Your task to perform on an android device: open app "DoorDash - Food Delivery" (install if not already installed) and go to login screen Image 0: 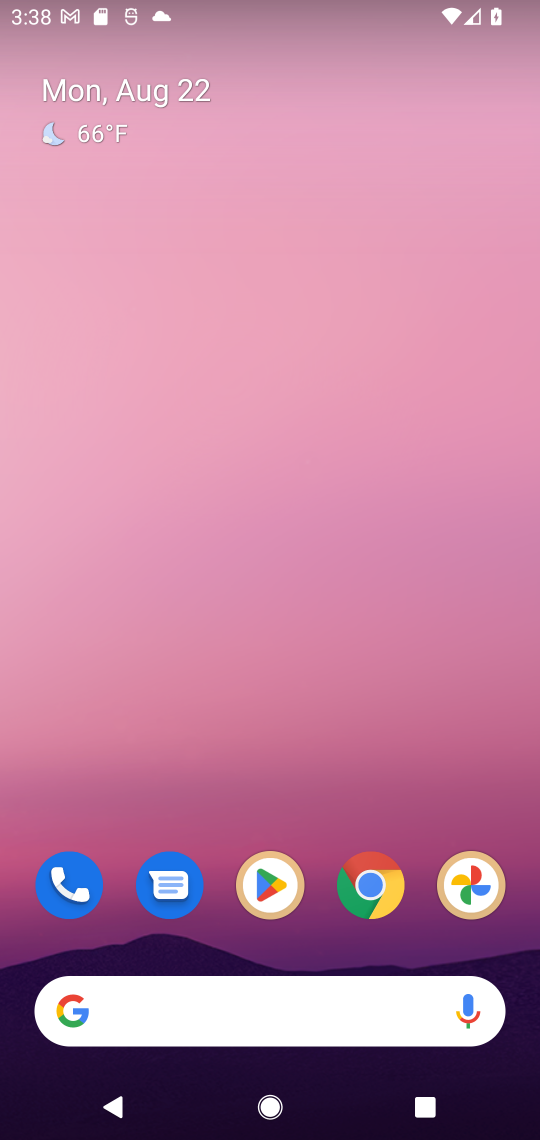
Step 0: press home button
Your task to perform on an android device: open app "DoorDash - Food Delivery" (install if not already installed) and go to login screen Image 1: 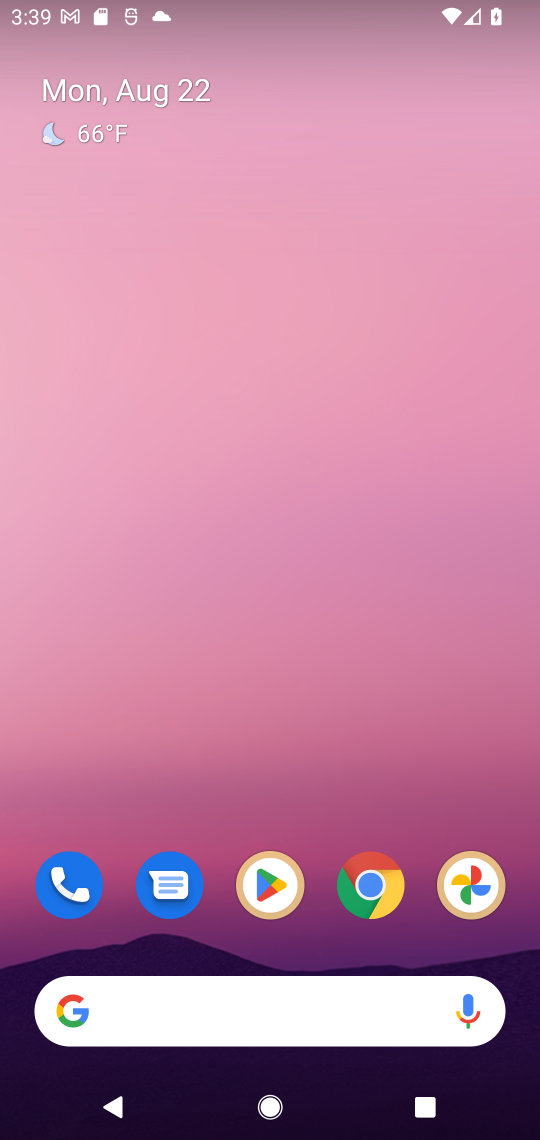
Step 1: click (268, 876)
Your task to perform on an android device: open app "DoorDash - Food Delivery" (install if not already installed) and go to login screen Image 2: 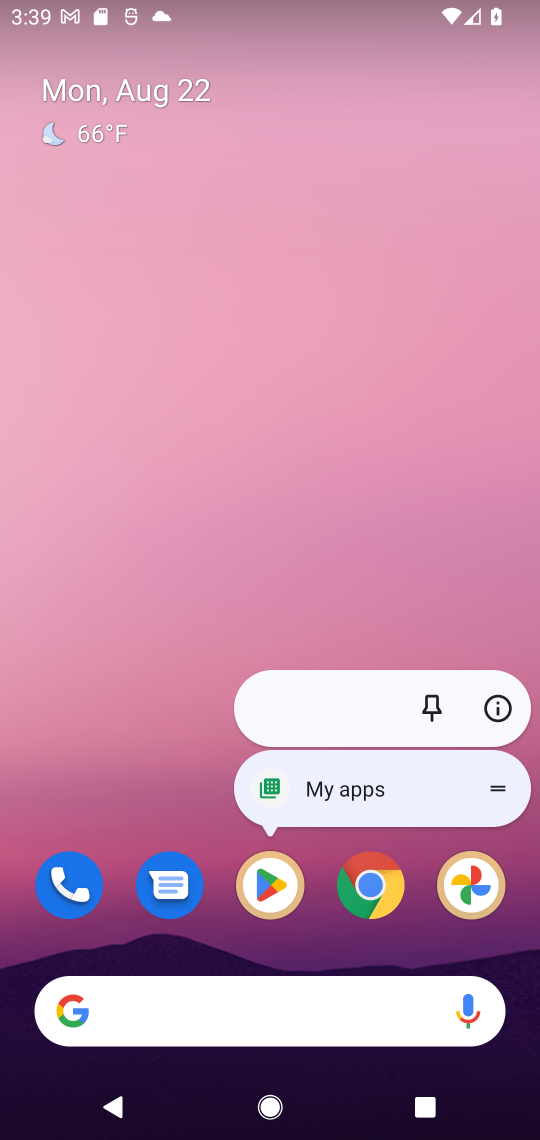
Step 2: click (267, 878)
Your task to perform on an android device: open app "DoorDash - Food Delivery" (install if not already installed) and go to login screen Image 3: 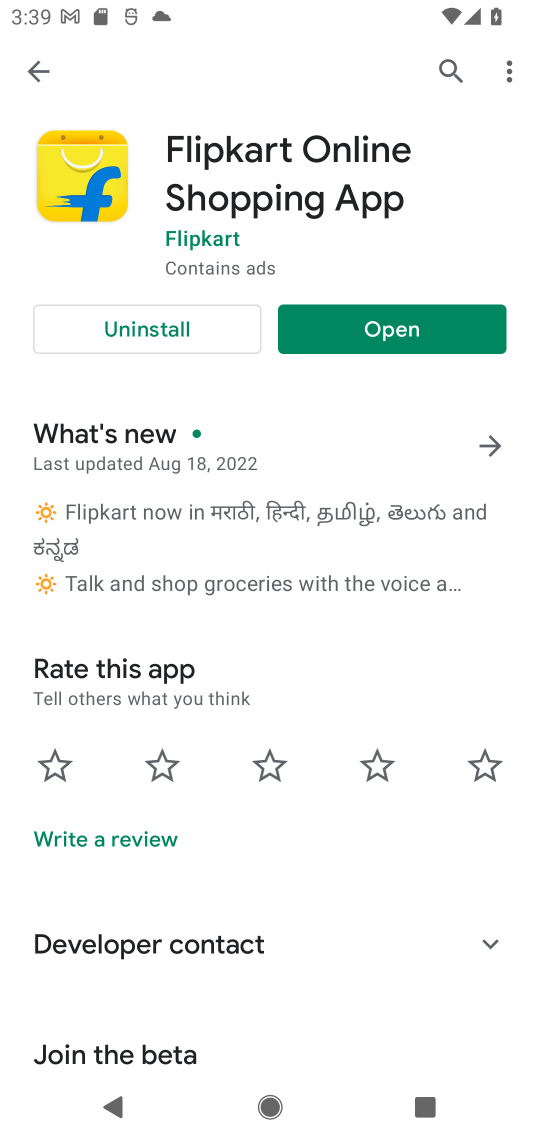
Step 3: click (441, 81)
Your task to perform on an android device: open app "DoorDash - Food Delivery" (install if not already installed) and go to login screen Image 4: 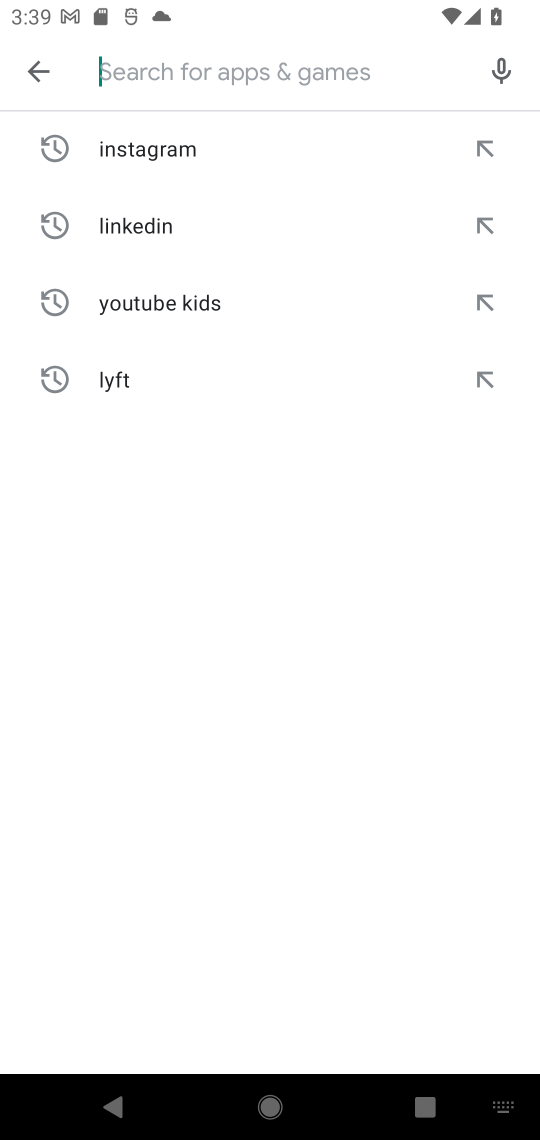
Step 4: type "DoorDash - Food Delivery"
Your task to perform on an android device: open app "DoorDash - Food Delivery" (install if not already installed) and go to login screen Image 5: 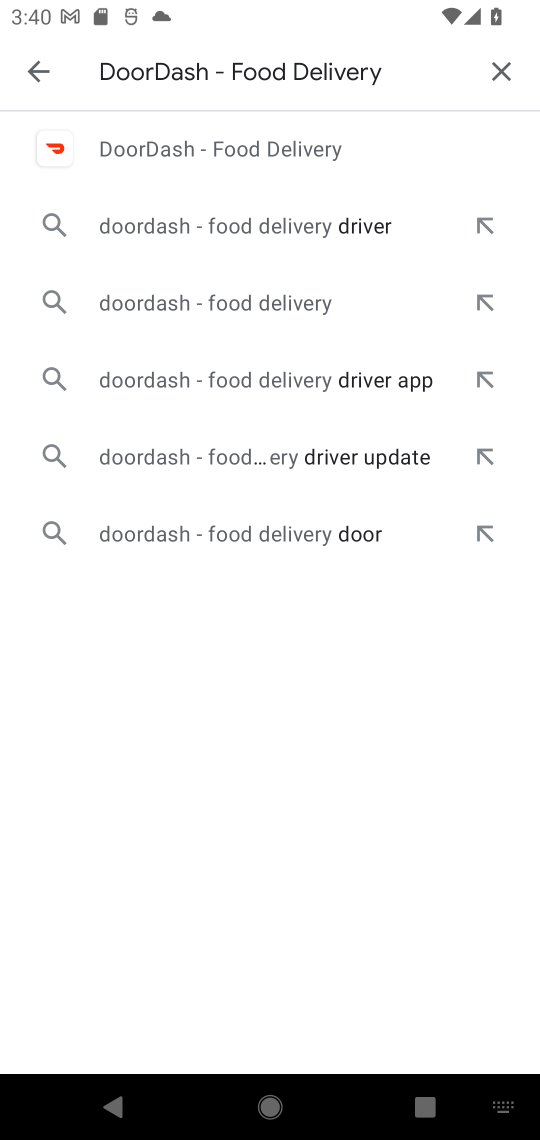
Step 5: click (293, 153)
Your task to perform on an android device: open app "DoorDash - Food Delivery" (install if not already installed) and go to login screen Image 6: 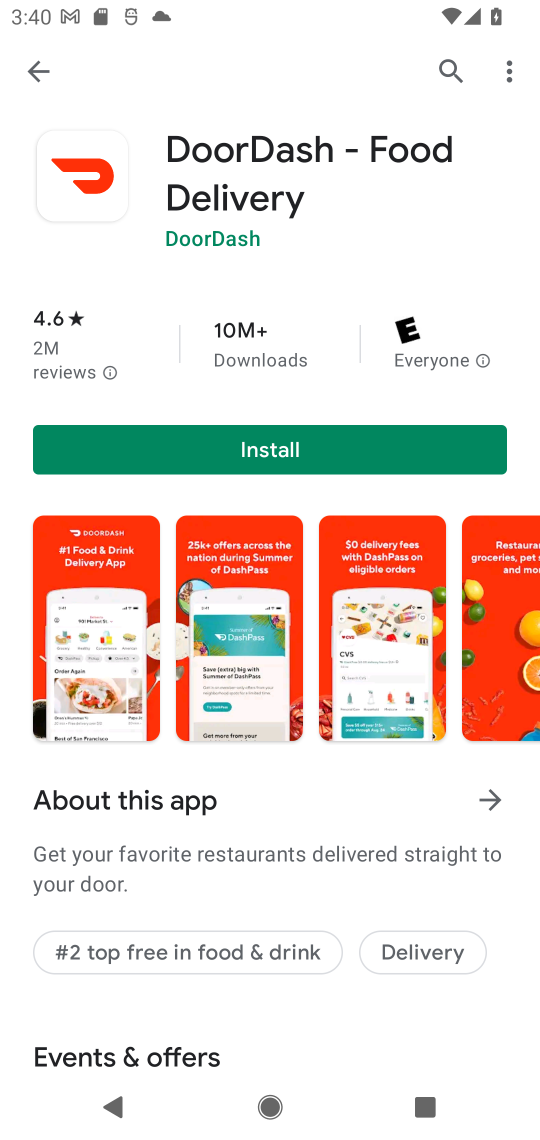
Step 6: click (252, 454)
Your task to perform on an android device: open app "DoorDash - Food Delivery" (install if not already installed) and go to login screen Image 7: 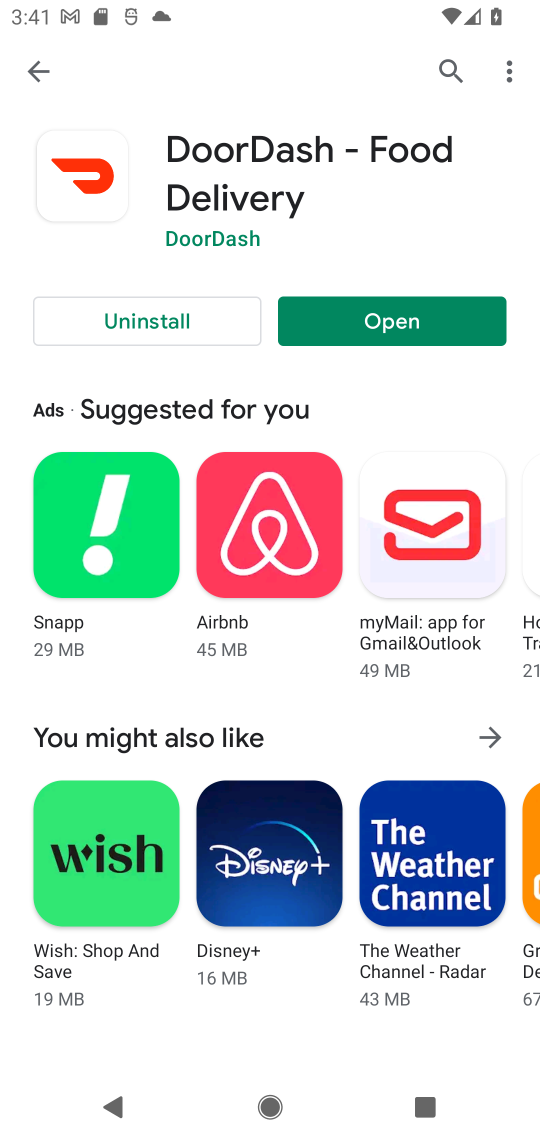
Step 7: click (361, 323)
Your task to perform on an android device: open app "DoorDash - Food Delivery" (install if not already installed) and go to login screen Image 8: 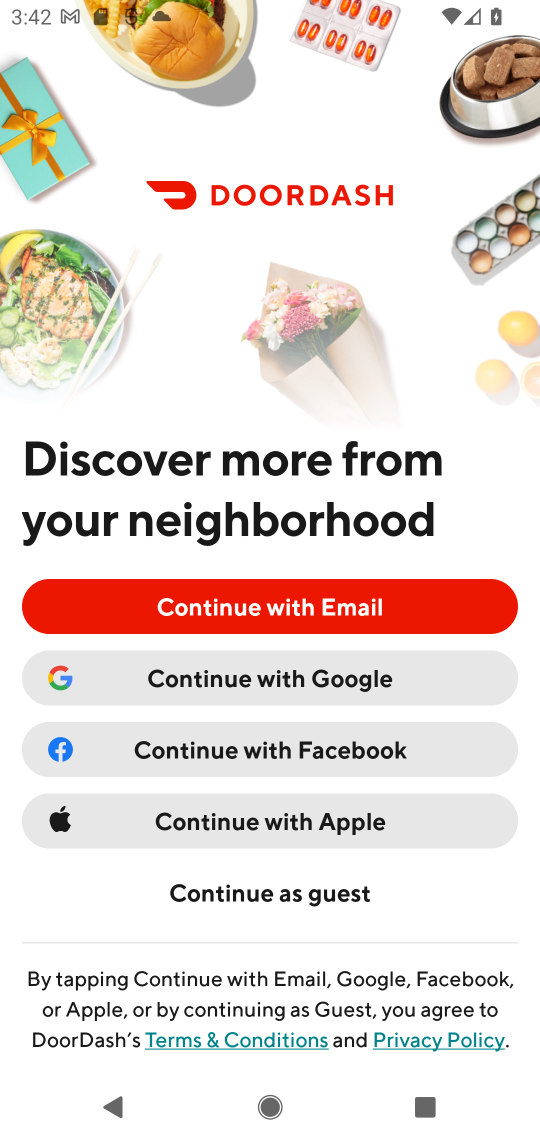
Step 8: click (264, 685)
Your task to perform on an android device: open app "DoorDash - Food Delivery" (install if not already installed) and go to login screen Image 9: 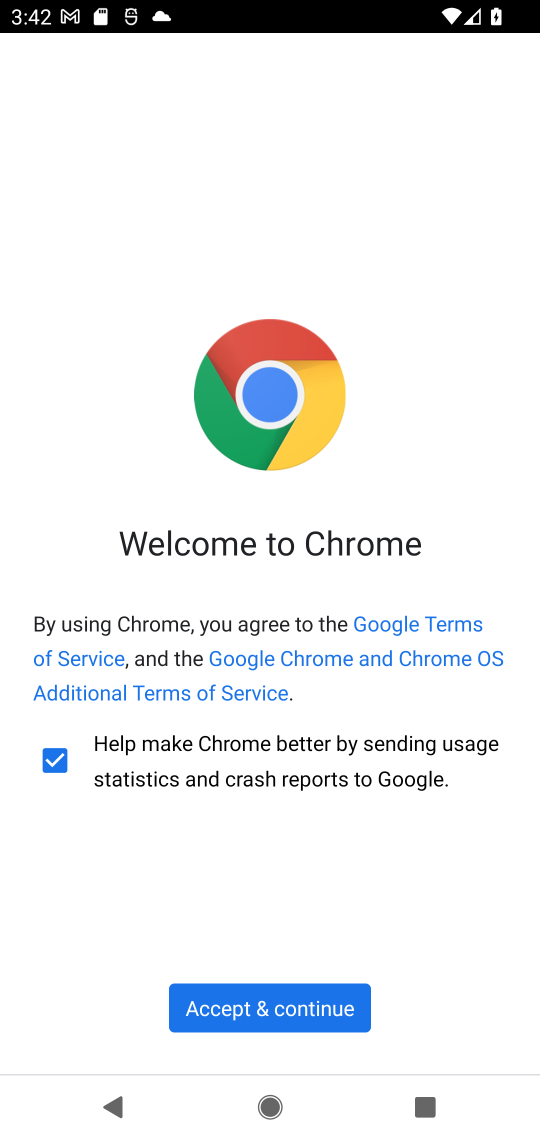
Step 9: task complete